Your task to perform on an android device: Go to display settings Image 0: 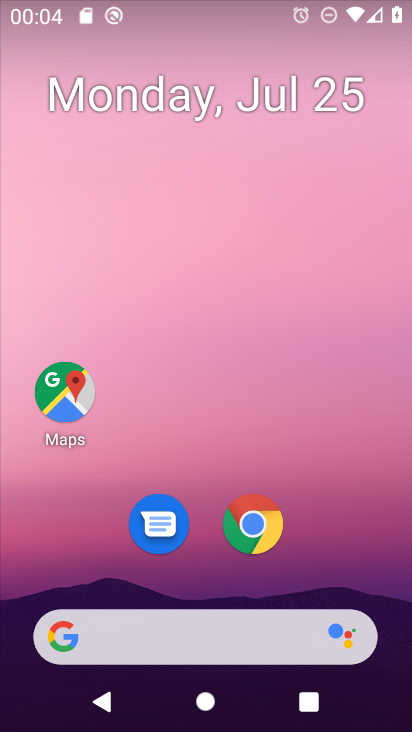
Step 0: drag from (226, 636) to (283, 58)
Your task to perform on an android device: Go to display settings Image 1: 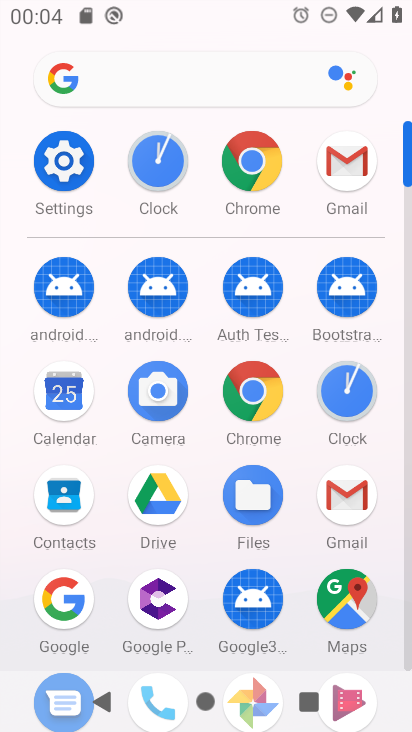
Step 1: click (83, 158)
Your task to perform on an android device: Go to display settings Image 2: 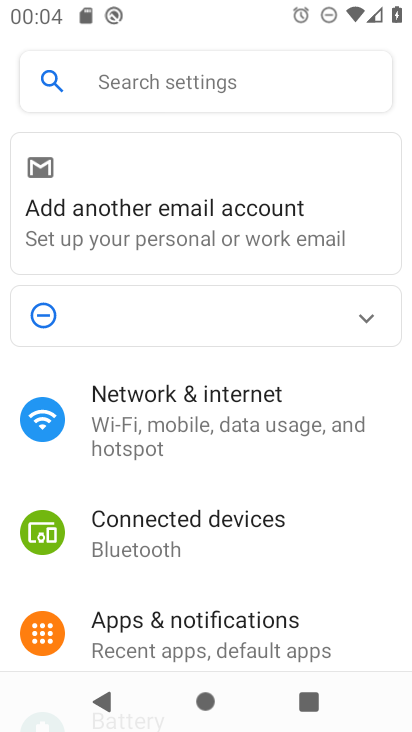
Step 2: drag from (281, 585) to (291, 158)
Your task to perform on an android device: Go to display settings Image 3: 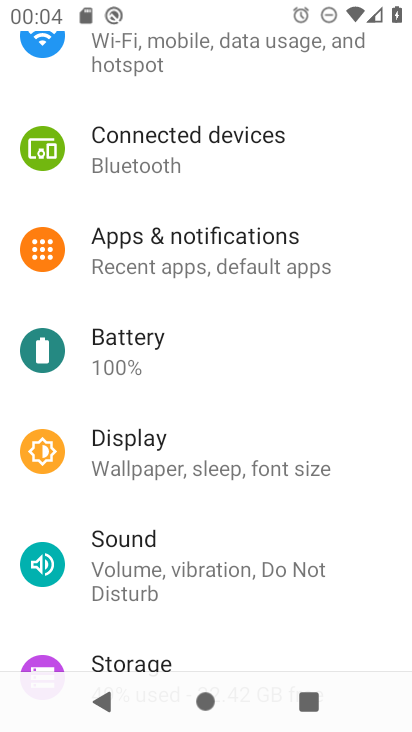
Step 3: click (138, 461)
Your task to perform on an android device: Go to display settings Image 4: 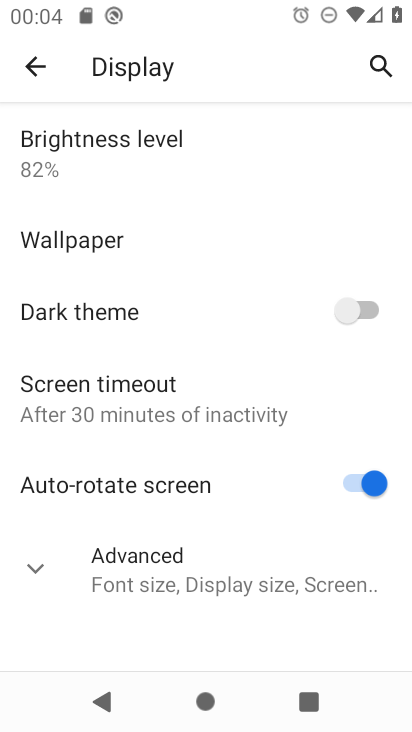
Step 4: task complete